Your task to perform on an android device: change the clock display to digital Image 0: 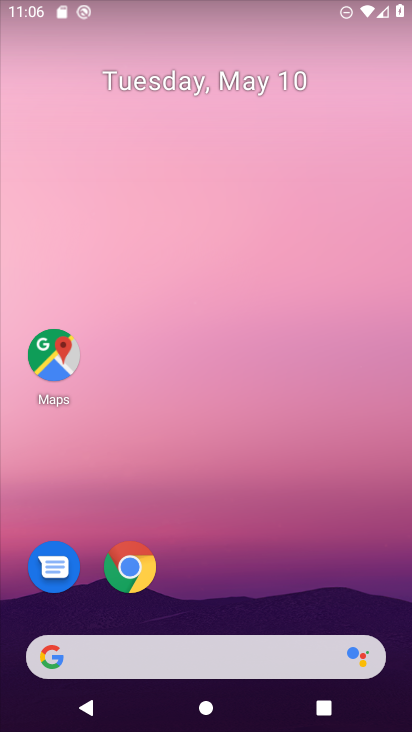
Step 0: drag from (181, 615) to (218, 165)
Your task to perform on an android device: change the clock display to digital Image 1: 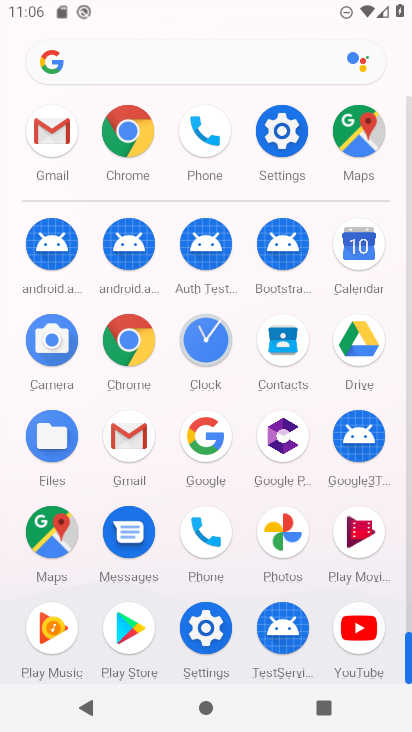
Step 1: click (195, 354)
Your task to perform on an android device: change the clock display to digital Image 2: 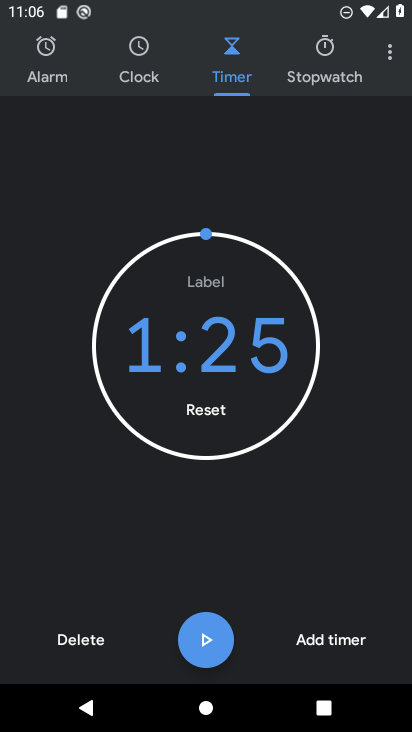
Step 2: task complete